Your task to perform on an android device: turn off notifications settings in the gmail app Image 0: 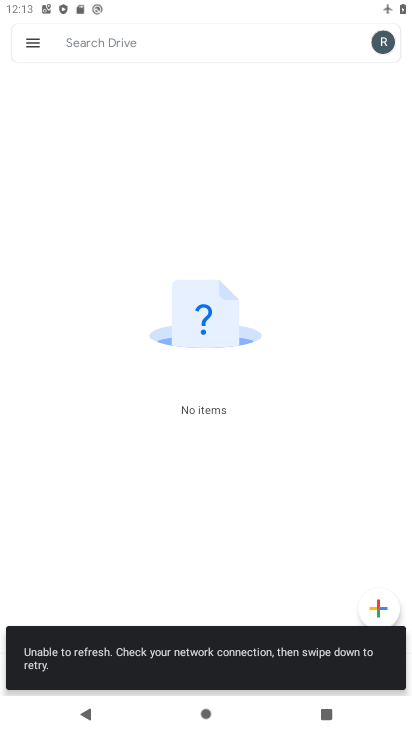
Step 0: press home button
Your task to perform on an android device: turn off notifications settings in the gmail app Image 1: 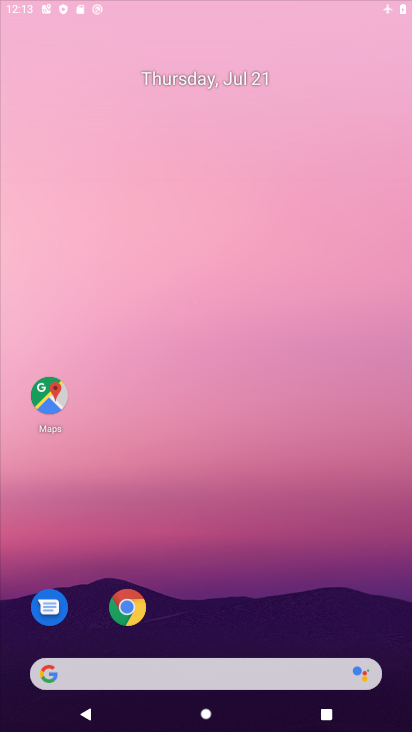
Step 1: drag from (315, 639) to (176, 50)
Your task to perform on an android device: turn off notifications settings in the gmail app Image 2: 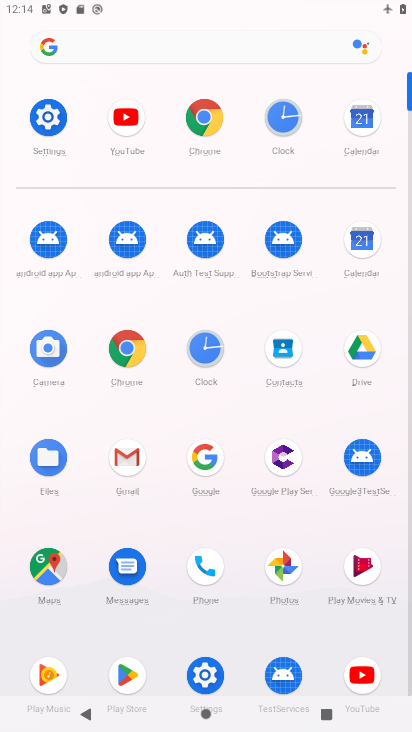
Step 2: click (125, 470)
Your task to perform on an android device: turn off notifications settings in the gmail app Image 3: 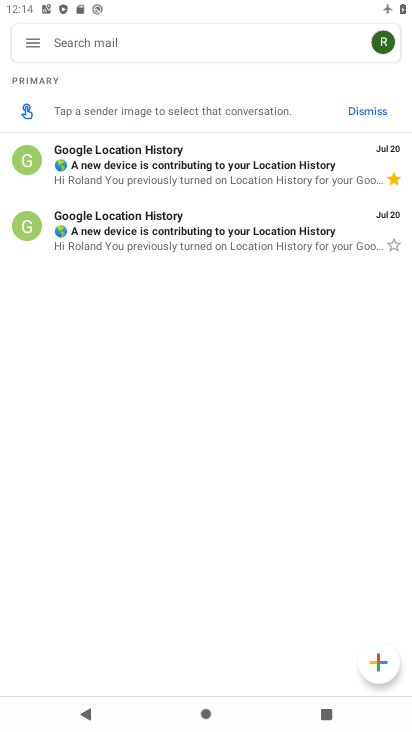
Step 3: click (25, 45)
Your task to perform on an android device: turn off notifications settings in the gmail app Image 4: 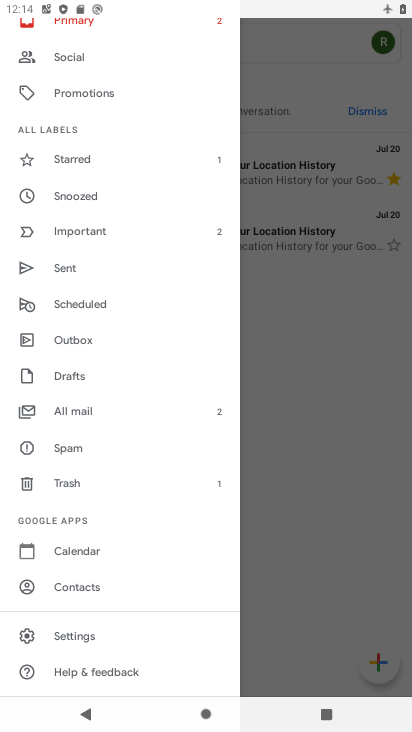
Step 4: click (89, 635)
Your task to perform on an android device: turn off notifications settings in the gmail app Image 5: 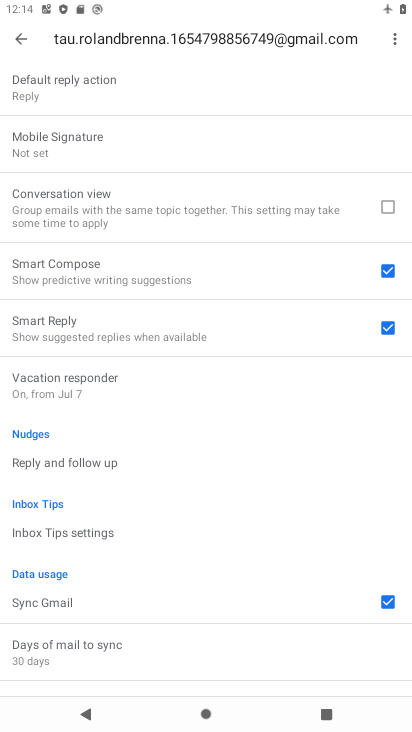
Step 5: drag from (81, 102) to (165, 727)
Your task to perform on an android device: turn off notifications settings in the gmail app Image 6: 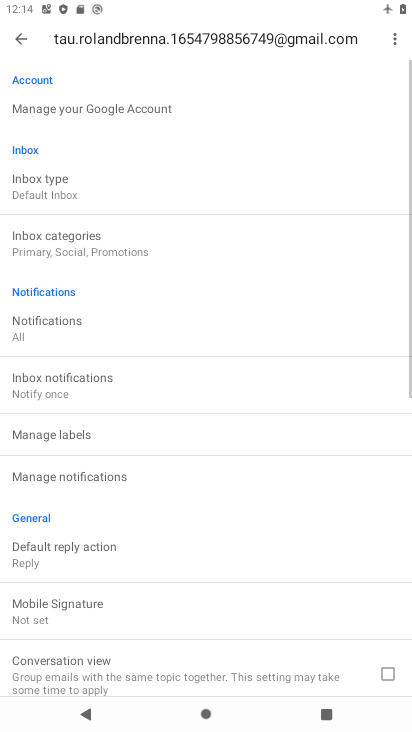
Step 6: click (75, 327)
Your task to perform on an android device: turn off notifications settings in the gmail app Image 7: 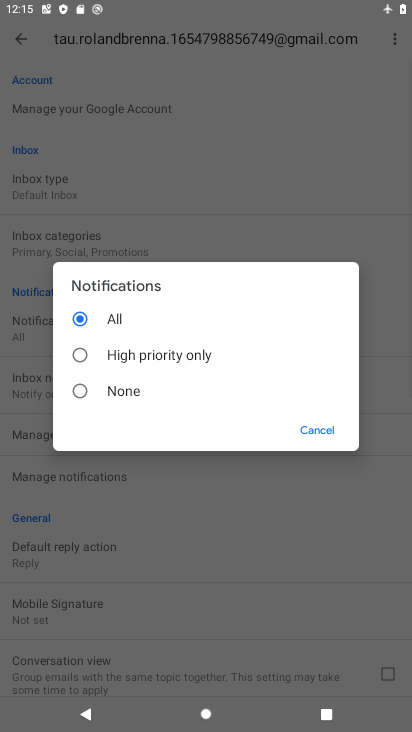
Step 7: click (89, 392)
Your task to perform on an android device: turn off notifications settings in the gmail app Image 8: 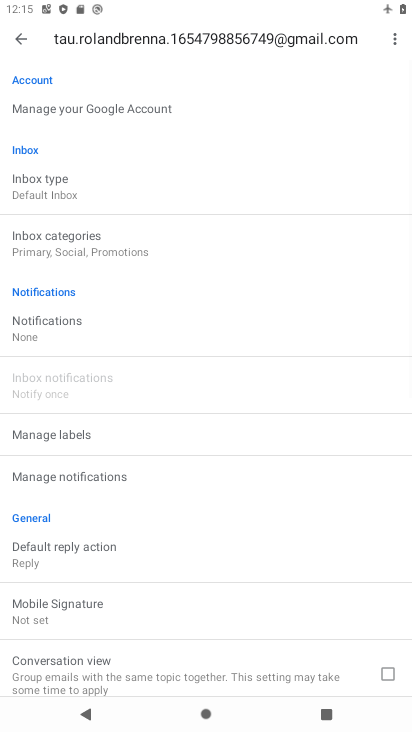
Step 8: task complete